Your task to perform on an android device: Open maps Image 0: 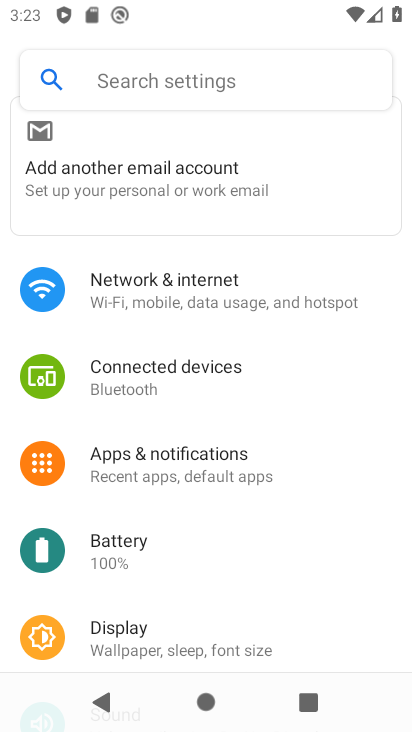
Step 0: press home button
Your task to perform on an android device: Open maps Image 1: 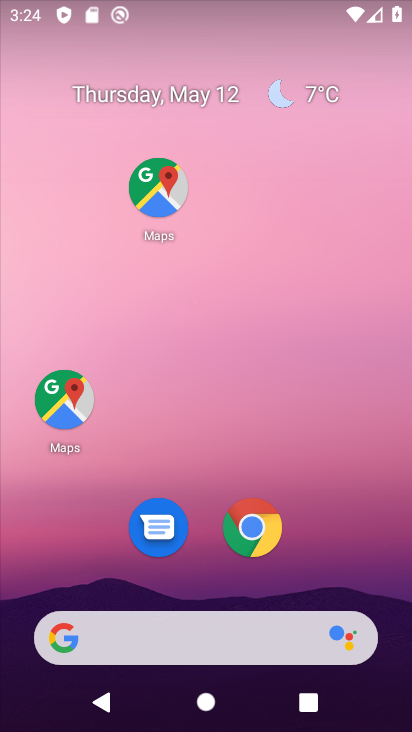
Step 1: click (164, 192)
Your task to perform on an android device: Open maps Image 2: 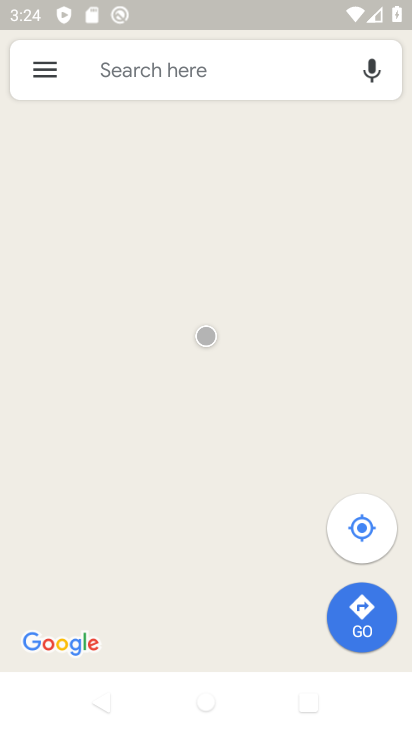
Step 2: task complete